Your task to perform on an android device: Open the calendar app, open the side menu, and click the "Day" option Image 0: 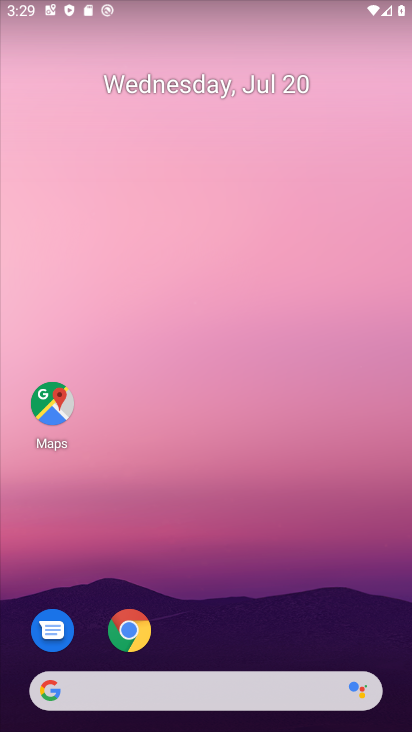
Step 0: press home button
Your task to perform on an android device: Open the calendar app, open the side menu, and click the "Day" option Image 1: 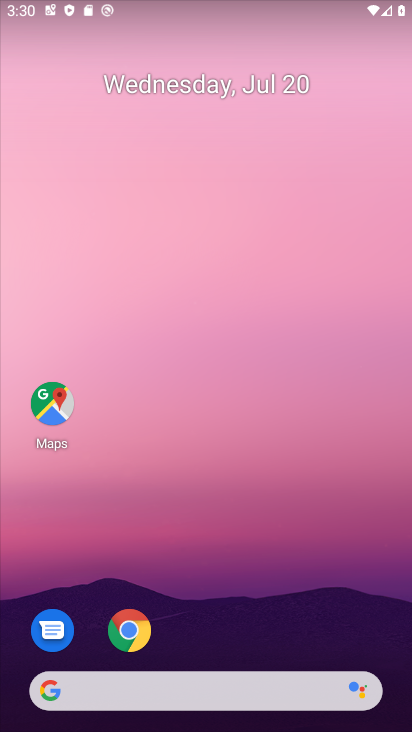
Step 1: drag from (205, 641) to (211, 165)
Your task to perform on an android device: Open the calendar app, open the side menu, and click the "Day" option Image 2: 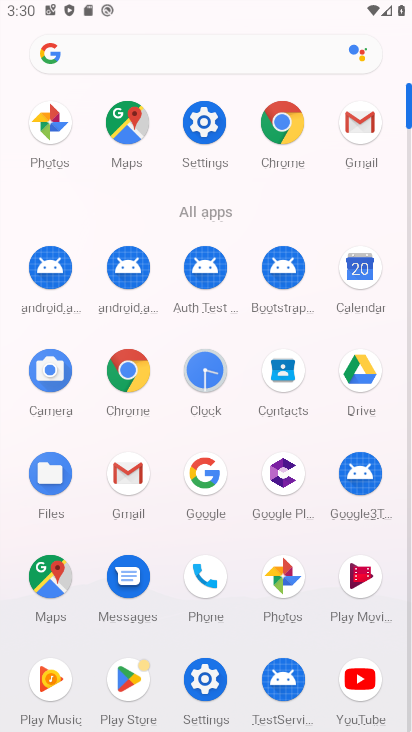
Step 2: click (357, 260)
Your task to perform on an android device: Open the calendar app, open the side menu, and click the "Day" option Image 3: 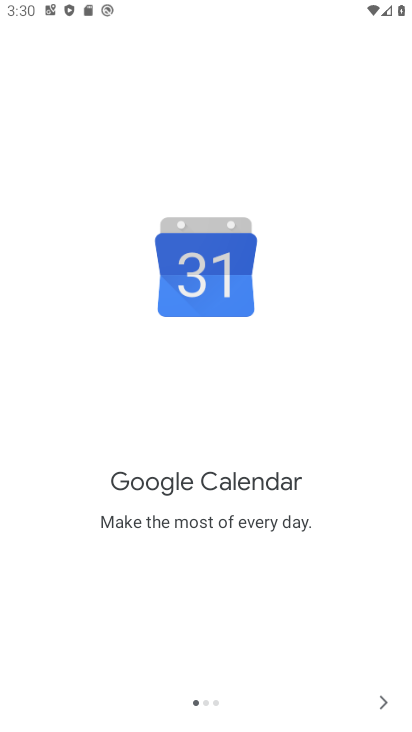
Step 3: click (377, 697)
Your task to perform on an android device: Open the calendar app, open the side menu, and click the "Day" option Image 4: 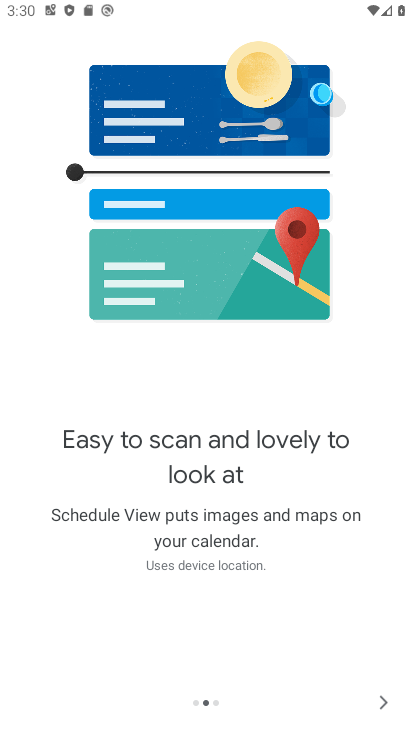
Step 4: click (387, 700)
Your task to perform on an android device: Open the calendar app, open the side menu, and click the "Day" option Image 5: 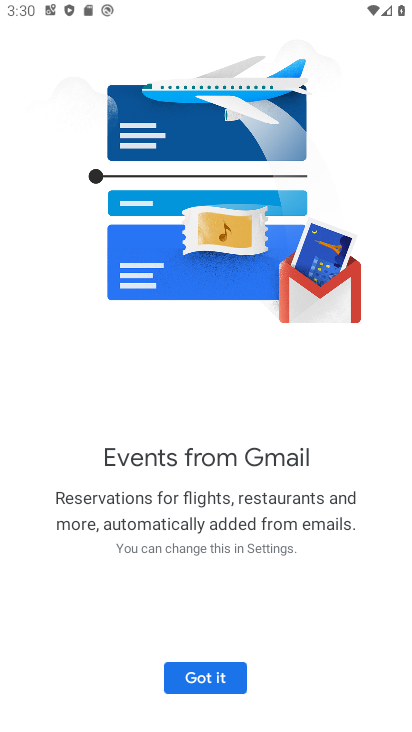
Step 5: click (215, 673)
Your task to perform on an android device: Open the calendar app, open the side menu, and click the "Day" option Image 6: 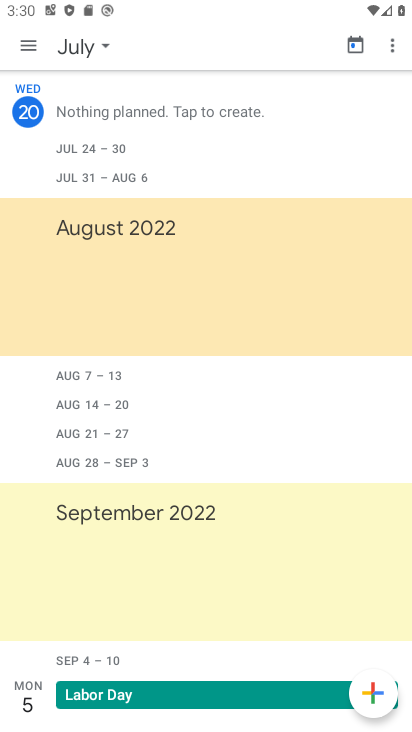
Step 6: click (25, 45)
Your task to perform on an android device: Open the calendar app, open the side menu, and click the "Day" option Image 7: 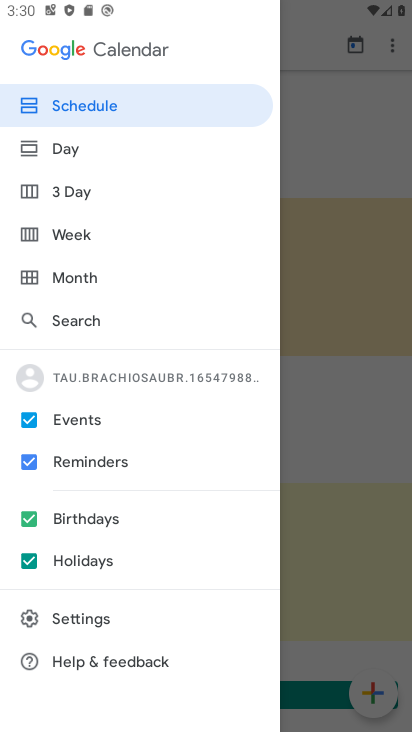
Step 7: click (62, 143)
Your task to perform on an android device: Open the calendar app, open the side menu, and click the "Day" option Image 8: 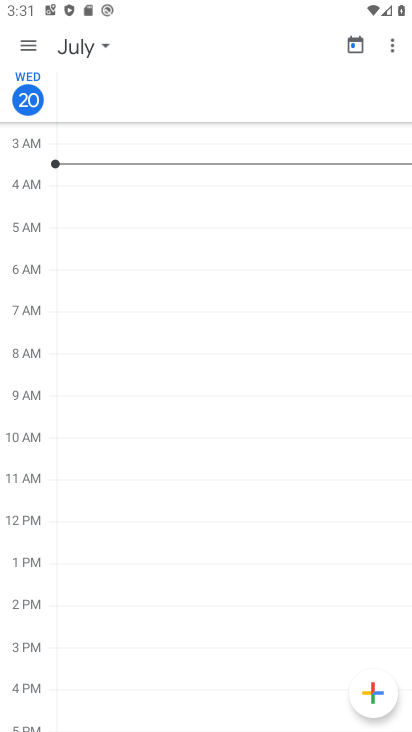
Step 8: task complete